Your task to perform on an android device: Open the stopwatch Image 0: 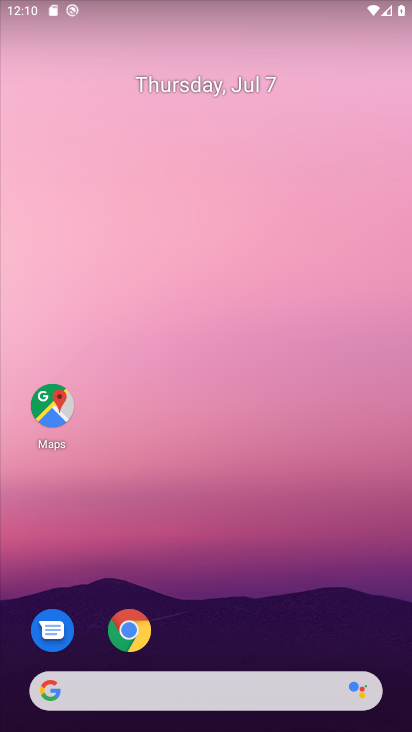
Step 0: drag from (236, 441) to (291, 39)
Your task to perform on an android device: Open the stopwatch Image 1: 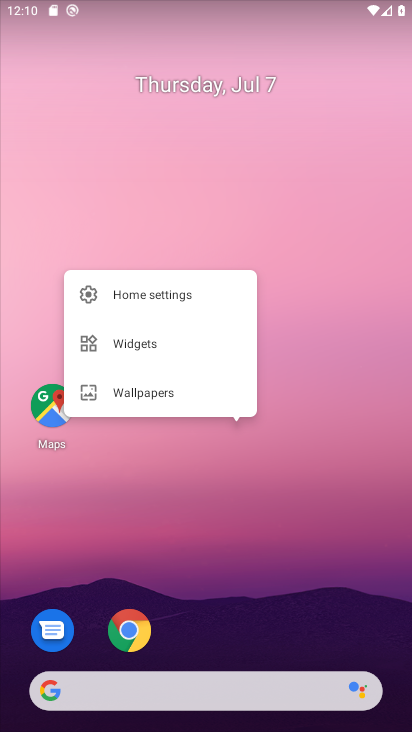
Step 1: drag from (207, 645) to (256, 170)
Your task to perform on an android device: Open the stopwatch Image 2: 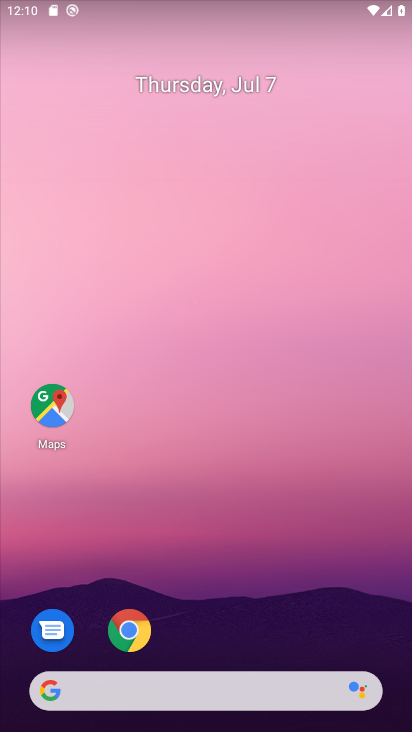
Step 2: drag from (209, 646) to (261, 67)
Your task to perform on an android device: Open the stopwatch Image 3: 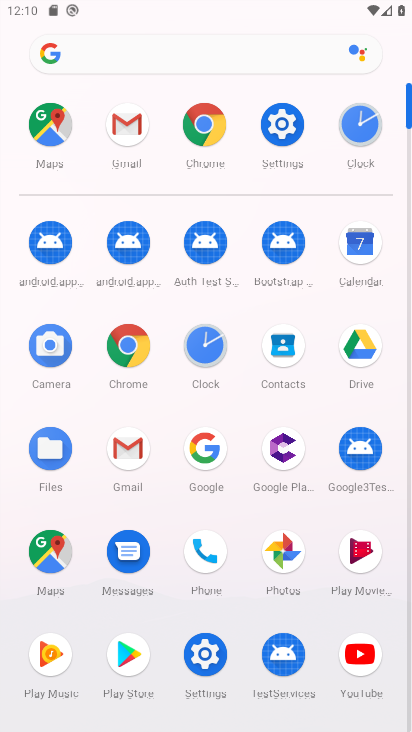
Step 3: click (204, 365)
Your task to perform on an android device: Open the stopwatch Image 4: 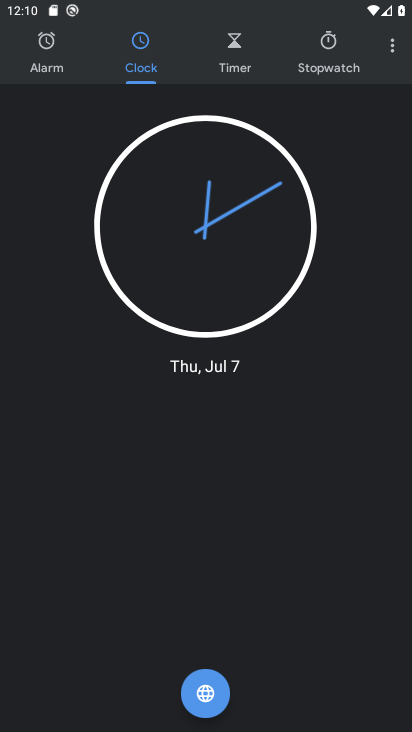
Step 4: click (323, 45)
Your task to perform on an android device: Open the stopwatch Image 5: 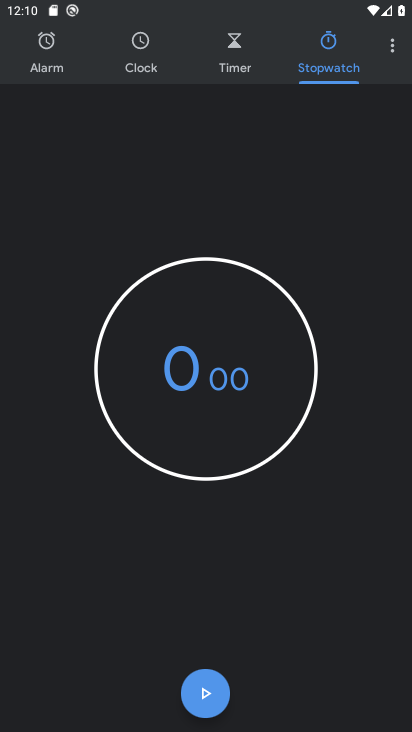
Step 5: click (197, 699)
Your task to perform on an android device: Open the stopwatch Image 6: 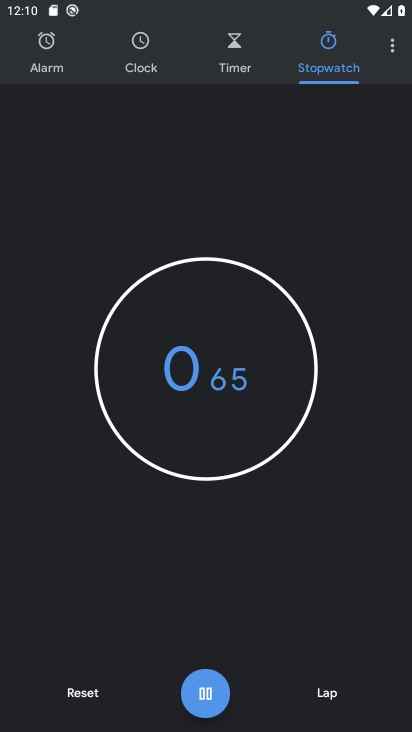
Step 6: task complete